Your task to perform on an android device: Go to notification settings Image 0: 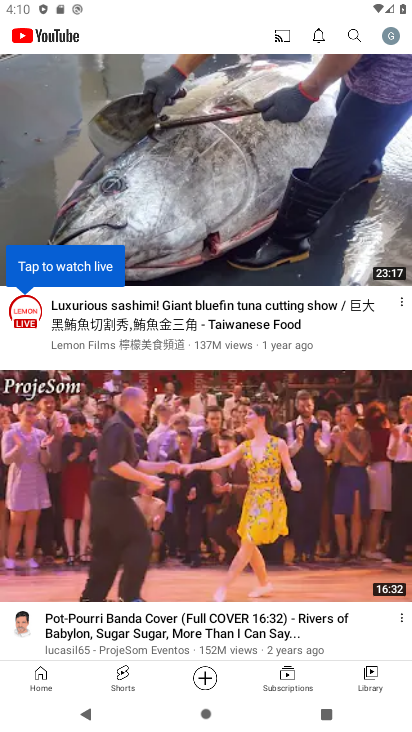
Step 0: press home button
Your task to perform on an android device: Go to notification settings Image 1: 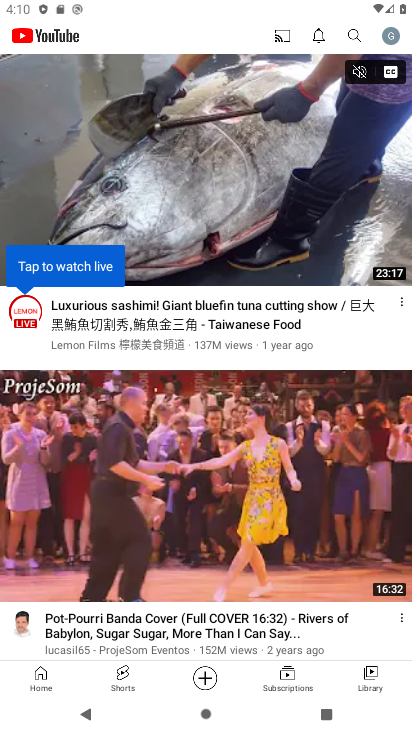
Step 1: click (359, 509)
Your task to perform on an android device: Go to notification settings Image 2: 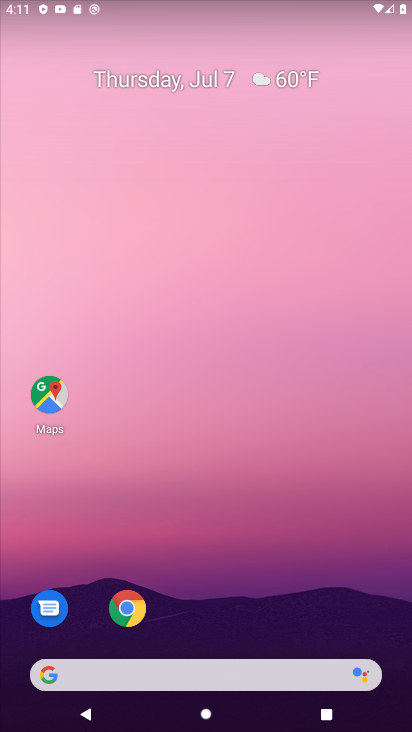
Step 2: drag from (359, 617) to (296, 187)
Your task to perform on an android device: Go to notification settings Image 3: 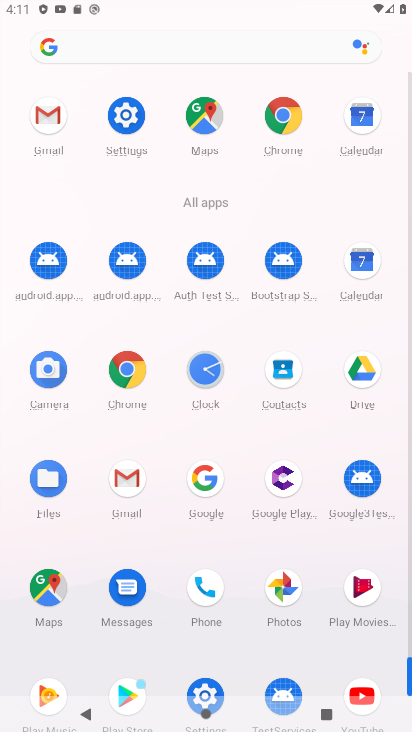
Step 3: click (133, 121)
Your task to perform on an android device: Go to notification settings Image 4: 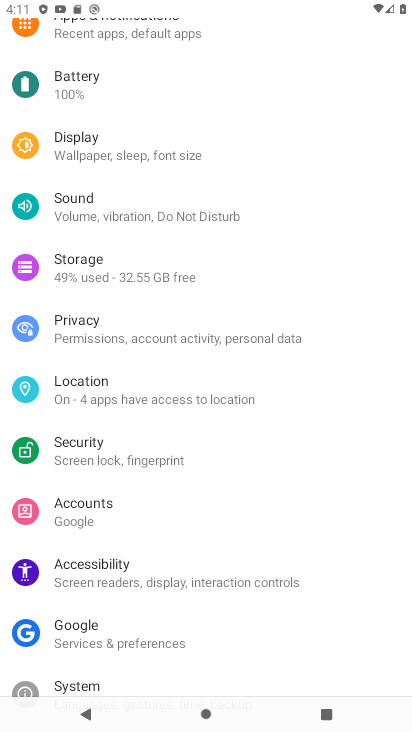
Step 4: drag from (276, 579) to (235, 338)
Your task to perform on an android device: Go to notification settings Image 5: 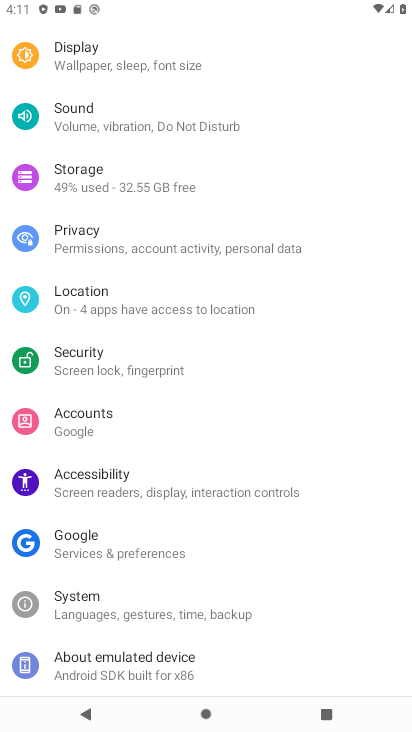
Step 5: drag from (217, 451) to (245, 39)
Your task to perform on an android device: Go to notification settings Image 6: 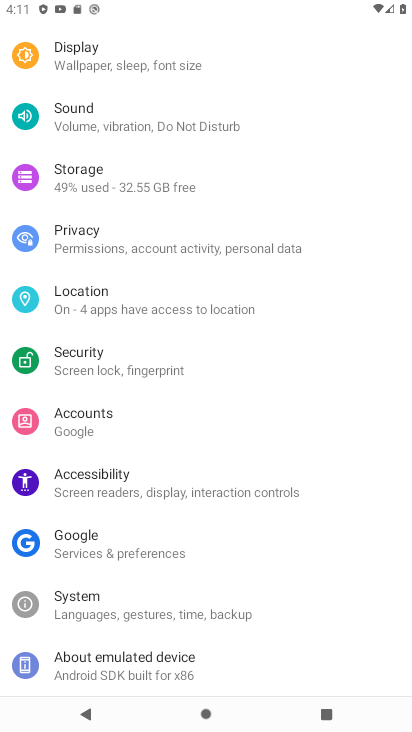
Step 6: drag from (166, 200) to (0, 530)
Your task to perform on an android device: Go to notification settings Image 7: 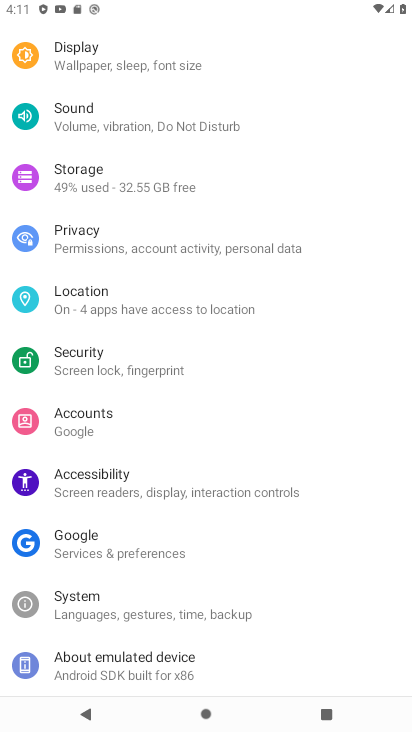
Step 7: drag from (319, 207) to (261, 575)
Your task to perform on an android device: Go to notification settings Image 8: 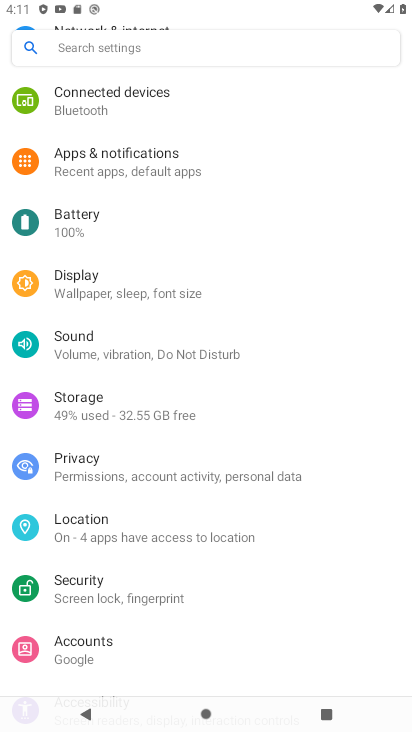
Step 8: drag from (173, 113) to (153, 221)
Your task to perform on an android device: Go to notification settings Image 9: 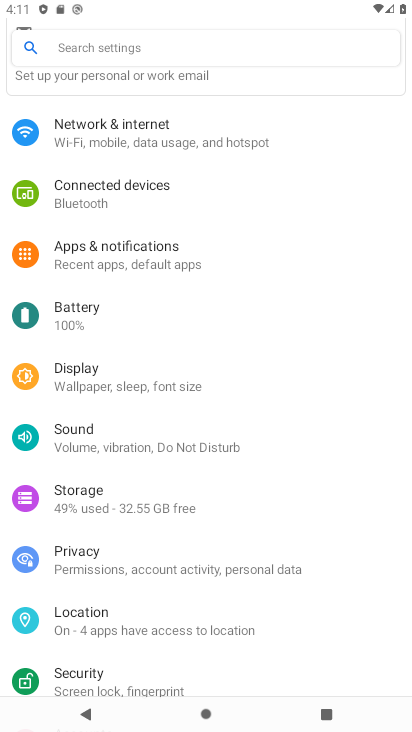
Step 9: click (174, 272)
Your task to perform on an android device: Go to notification settings Image 10: 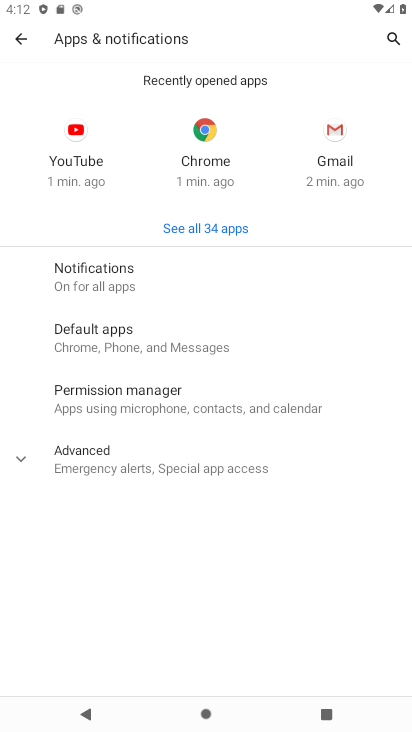
Step 10: click (156, 270)
Your task to perform on an android device: Go to notification settings Image 11: 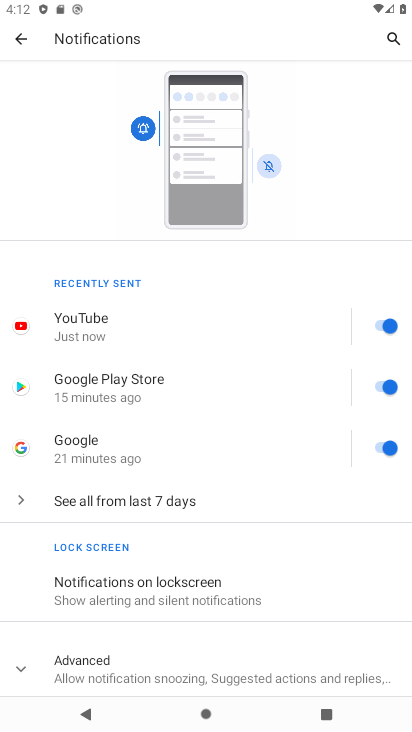
Step 11: task complete